Your task to perform on an android device: Do I have any events today? Image 0: 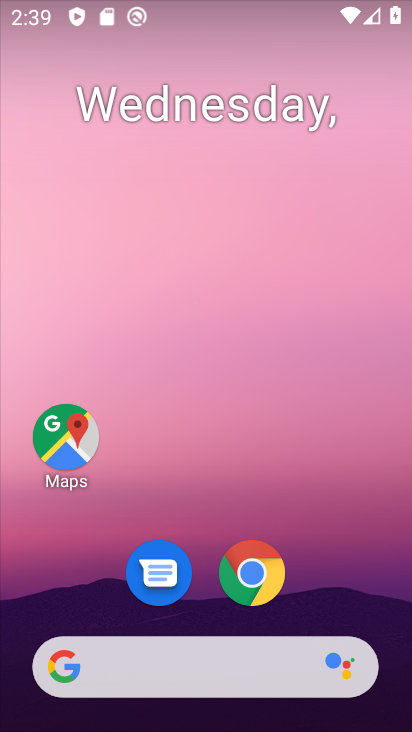
Step 0: drag from (340, 582) to (262, 122)
Your task to perform on an android device: Do I have any events today? Image 1: 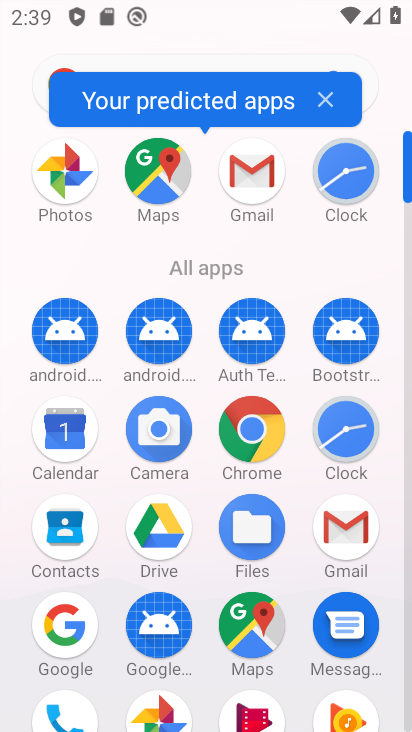
Step 1: click (52, 449)
Your task to perform on an android device: Do I have any events today? Image 2: 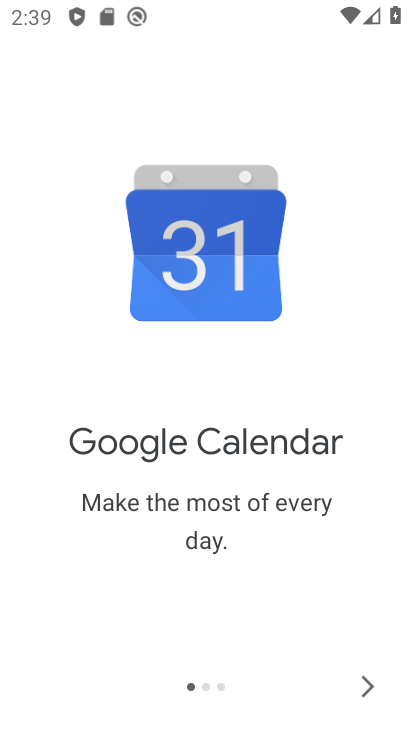
Step 2: click (358, 695)
Your task to perform on an android device: Do I have any events today? Image 3: 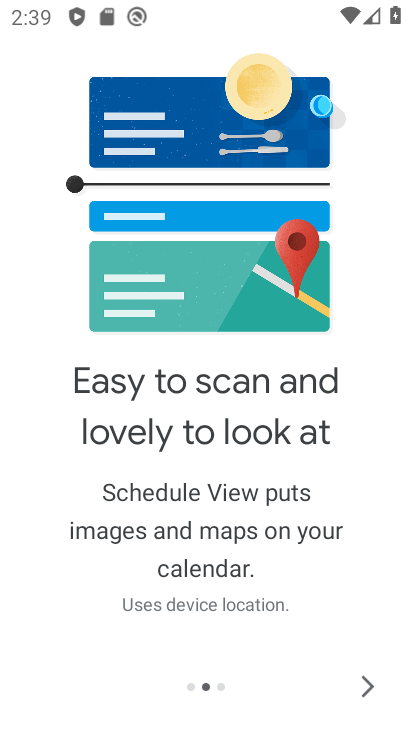
Step 3: click (358, 695)
Your task to perform on an android device: Do I have any events today? Image 4: 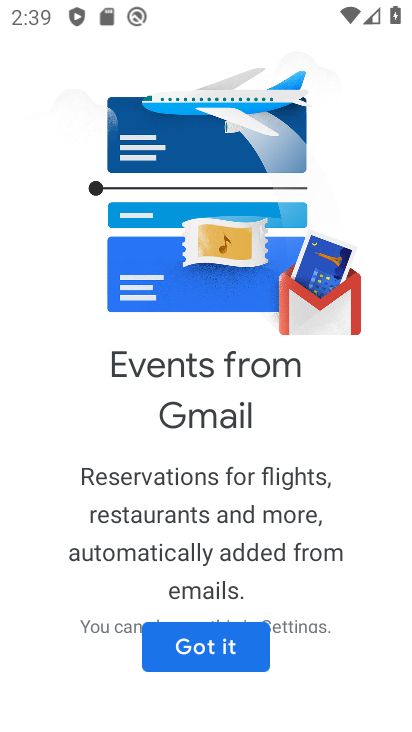
Step 4: click (358, 695)
Your task to perform on an android device: Do I have any events today? Image 5: 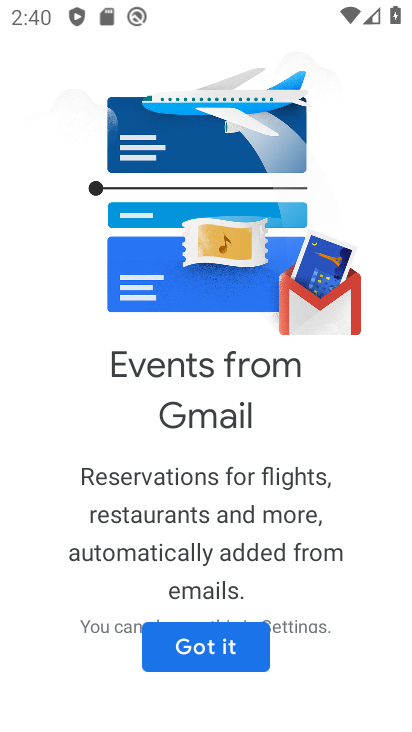
Step 5: click (218, 631)
Your task to perform on an android device: Do I have any events today? Image 6: 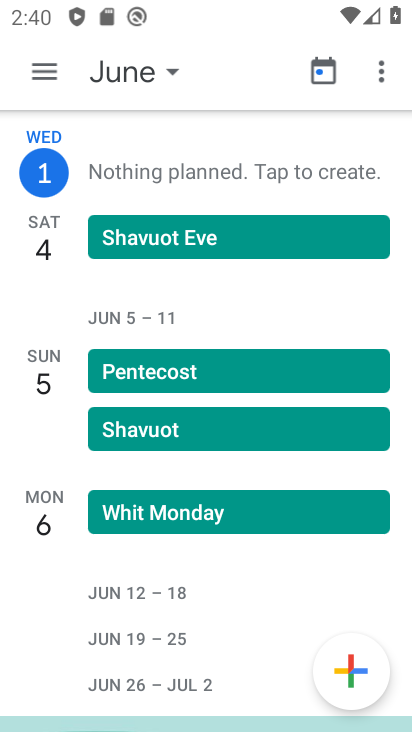
Step 6: click (55, 67)
Your task to perform on an android device: Do I have any events today? Image 7: 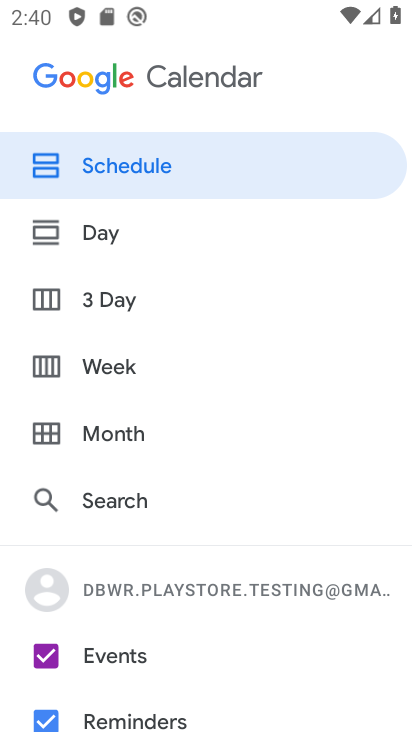
Step 7: drag from (110, 726) to (79, 378)
Your task to perform on an android device: Do I have any events today? Image 8: 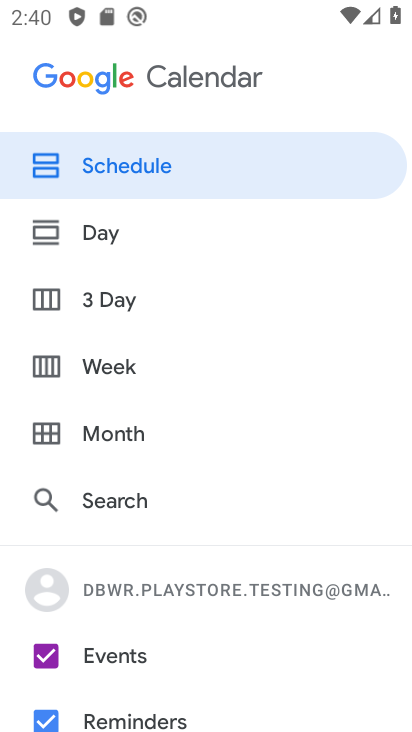
Step 8: drag from (161, 609) to (111, 141)
Your task to perform on an android device: Do I have any events today? Image 9: 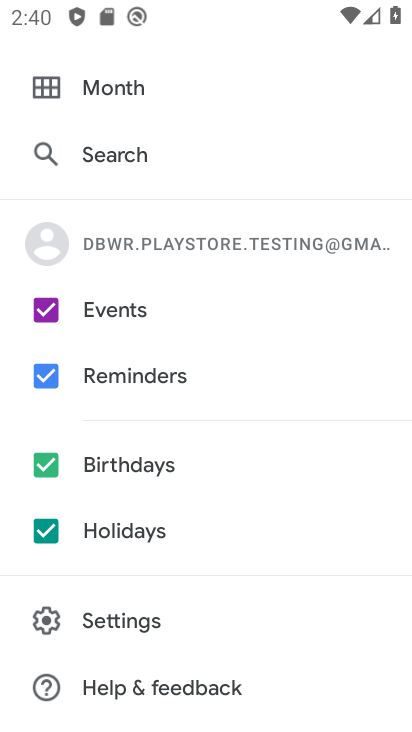
Step 9: click (52, 532)
Your task to perform on an android device: Do I have any events today? Image 10: 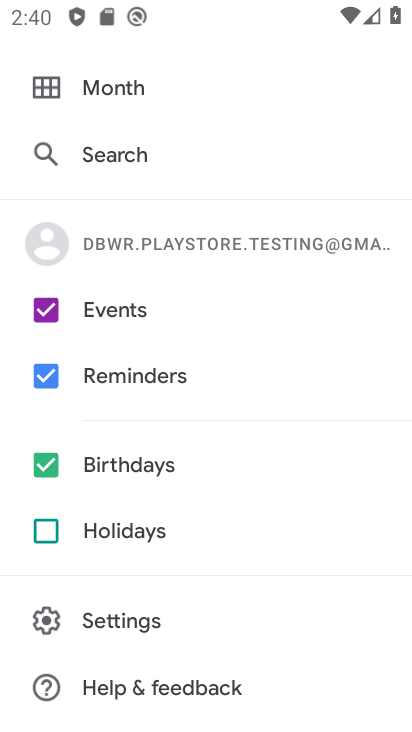
Step 10: click (49, 457)
Your task to perform on an android device: Do I have any events today? Image 11: 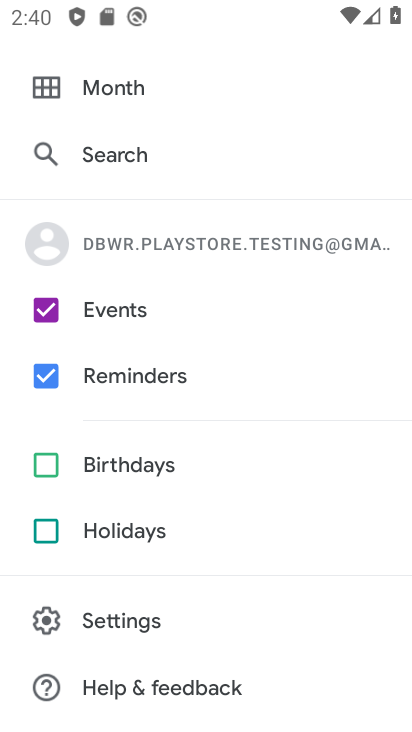
Step 11: click (45, 380)
Your task to perform on an android device: Do I have any events today? Image 12: 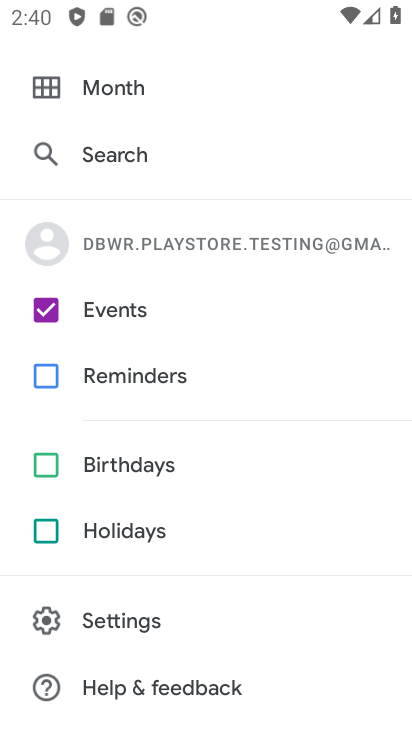
Step 12: drag from (107, 192) to (126, 671)
Your task to perform on an android device: Do I have any events today? Image 13: 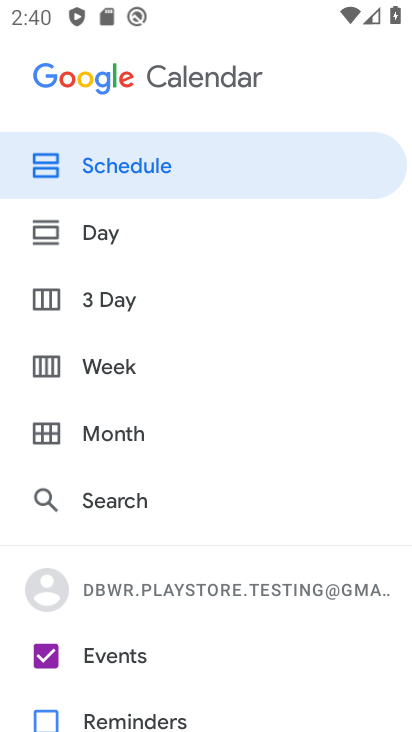
Step 13: click (105, 246)
Your task to perform on an android device: Do I have any events today? Image 14: 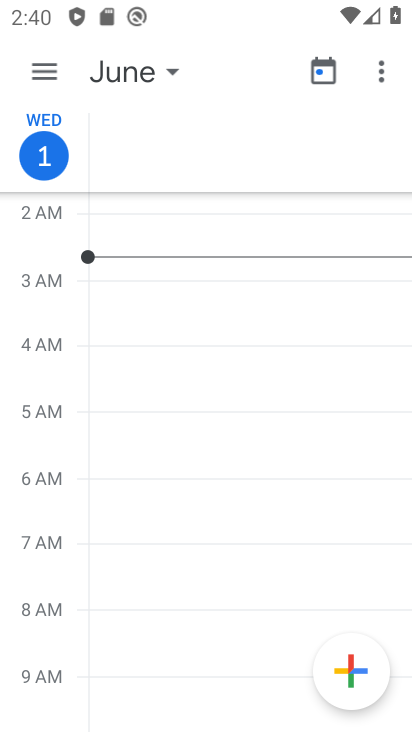
Step 14: task complete